Your task to perform on an android device: Go to sound settings Image 0: 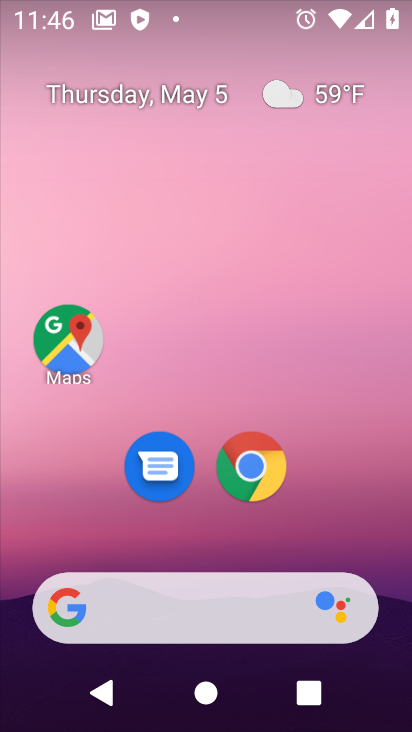
Step 0: drag from (219, 546) to (256, 84)
Your task to perform on an android device: Go to sound settings Image 1: 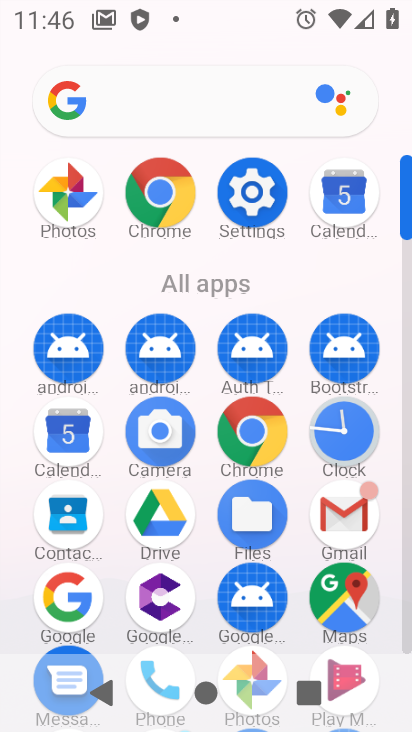
Step 1: click (250, 188)
Your task to perform on an android device: Go to sound settings Image 2: 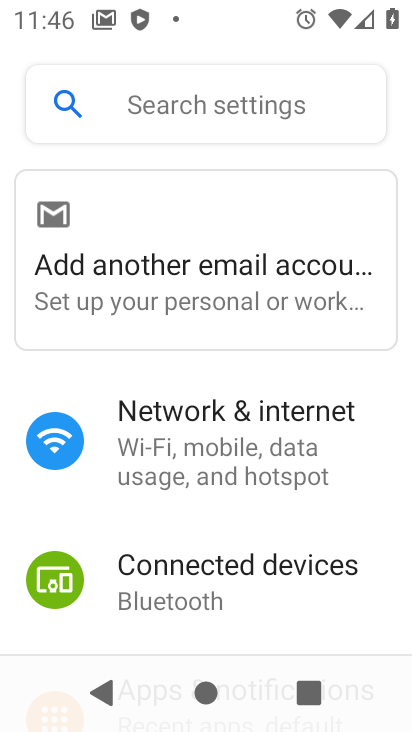
Step 2: drag from (226, 523) to (254, 174)
Your task to perform on an android device: Go to sound settings Image 3: 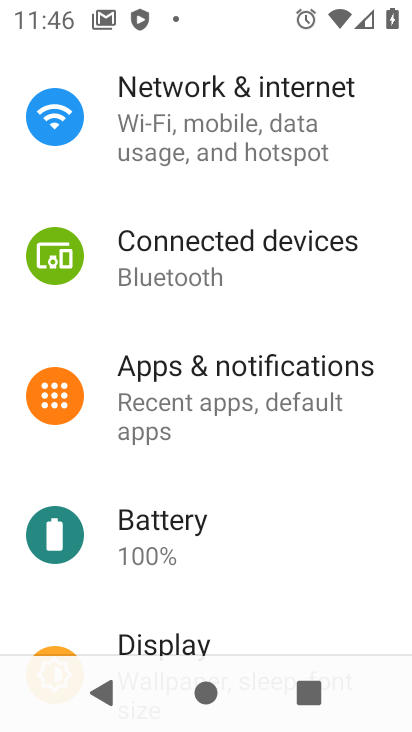
Step 3: drag from (197, 576) to (224, 336)
Your task to perform on an android device: Go to sound settings Image 4: 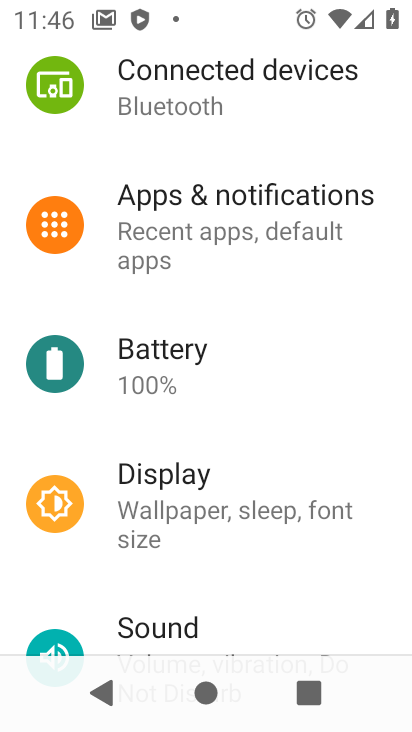
Step 4: drag from (219, 567) to (263, 252)
Your task to perform on an android device: Go to sound settings Image 5: 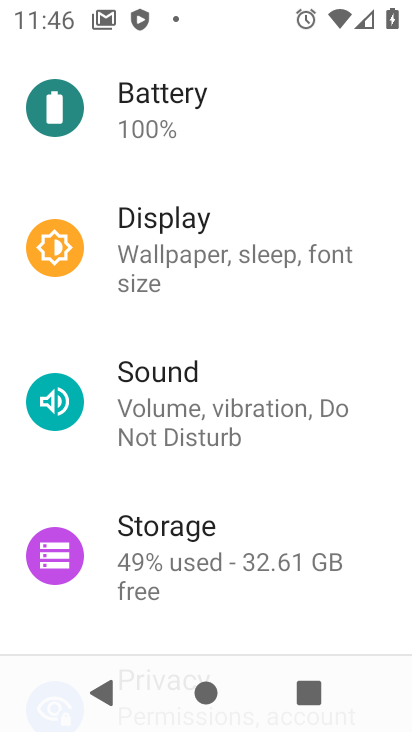
Step 5: click (204, 411)
Your task to perform on an android device: Go to sound settings Image 6: 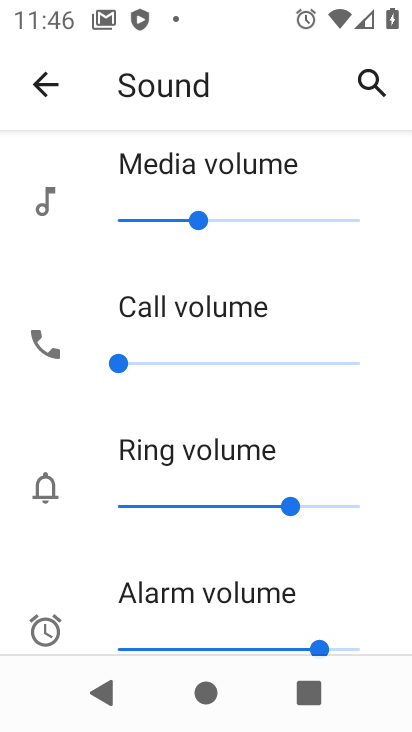
Step 6: task complete